Your task to perform on an android device: Search for Italian restaurants on Maps Image 0: 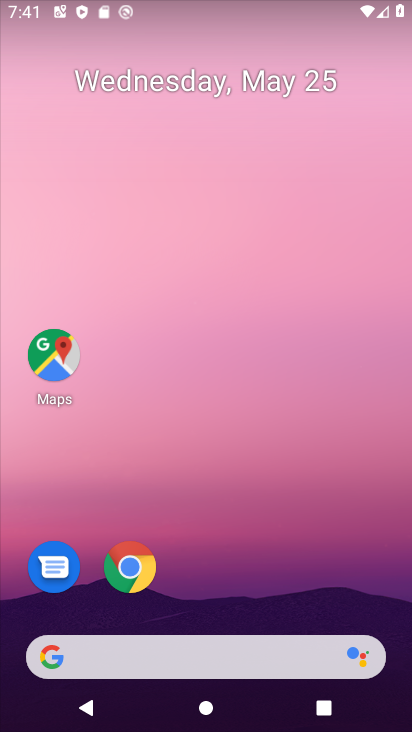
Step 0: click (66, 376)
Your task to perform on an android device: Search for Italian restaurants on Maps Image 1: 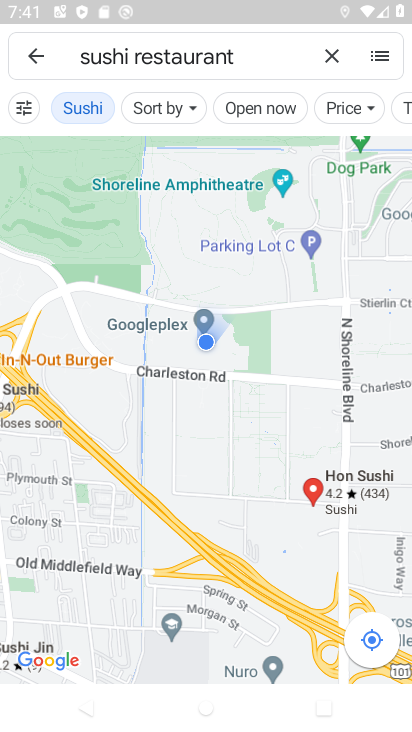
Step 1: click (335, 60)
Your task to perform on an android device: Search for Italian restaurants on Maps Image 2: 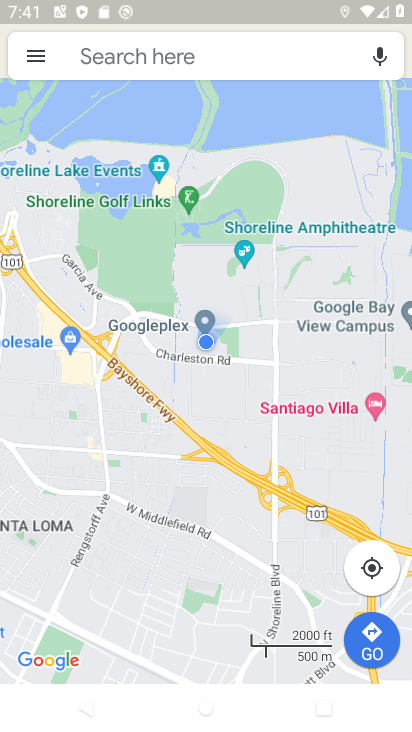
Step 2: click (241, 58)
Your task to perform on an android device: Search for Italian restaurants on Maps Image 3: 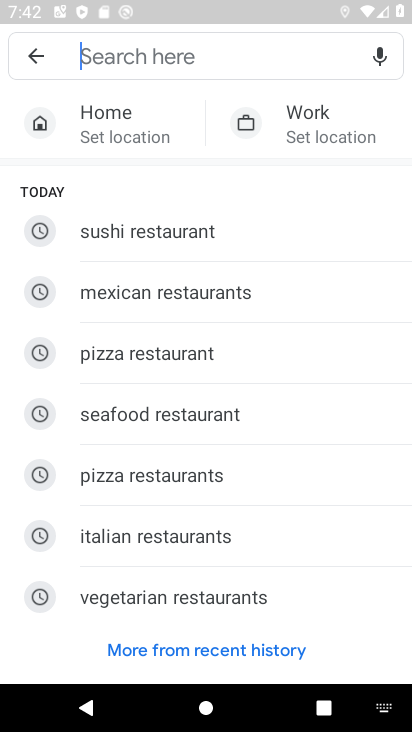
Step 3: click (158, 555)
Your task to perform on an android device: Search for Italian restaurants on Maps Image 4: 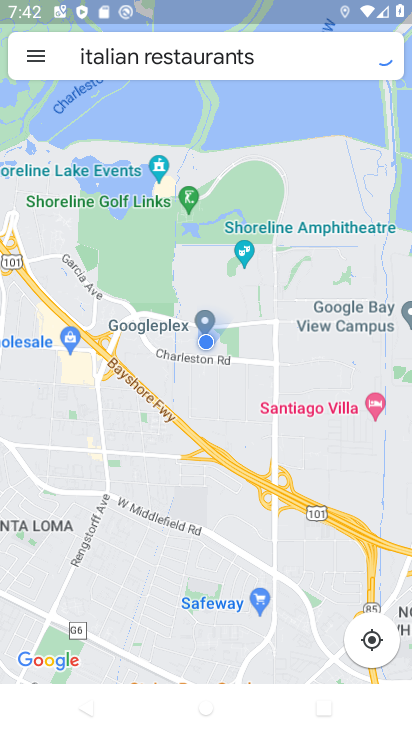
Step 4: task complete